Your task to perform on an android device: change the clock display to analog Image 0: 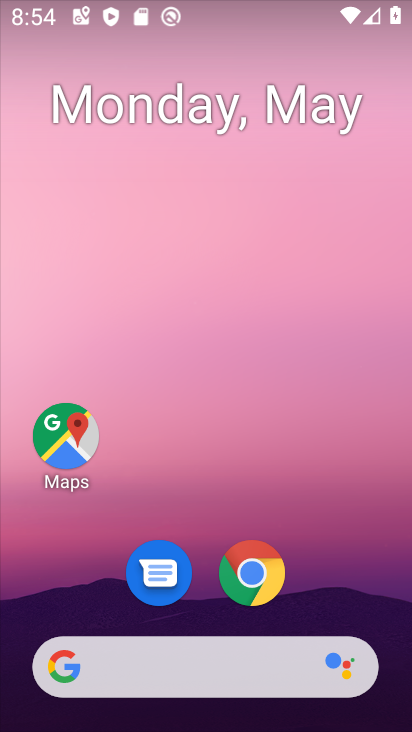
Step 0: drag from (344, 567) to (316, 172)
Your task to perform on an android device: change the clock display to analog Image 1: 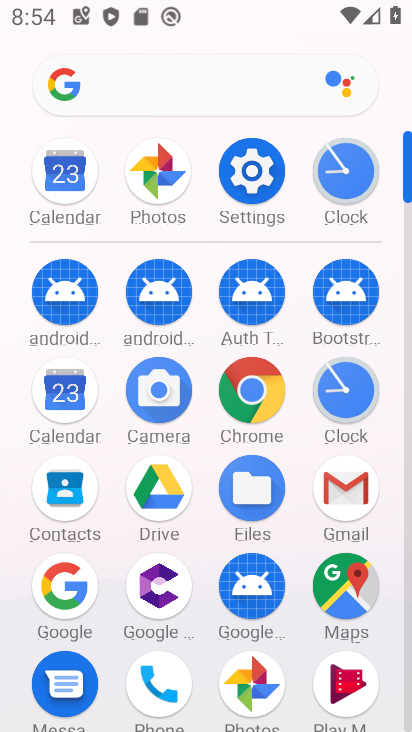
Step 1: click (363, 200)
Your task to perform on an android device: change the clock display to analog Image 2: 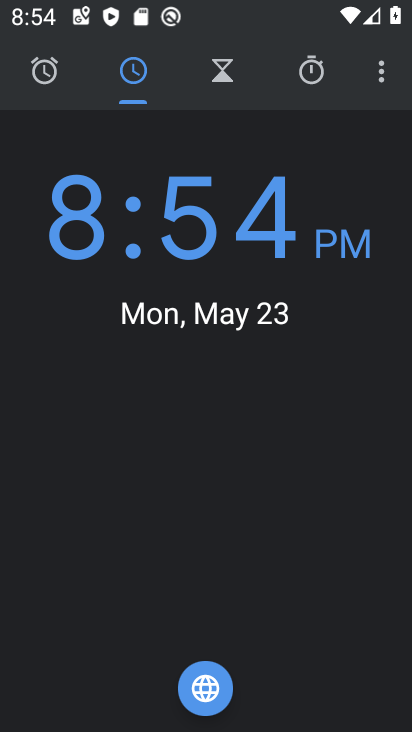
Step 2: click (398, 58)
Your task to perform on an android device: change the clock display to analog Image 3: 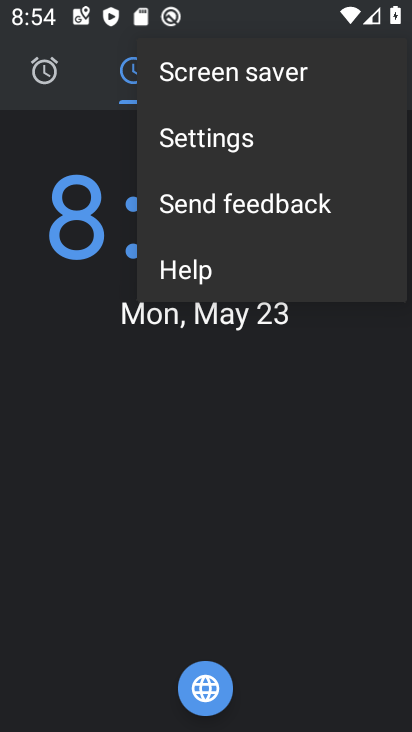
Step 3: click (258, 159)
Your task to perform on an android device: change the clock display to analog Image 4: 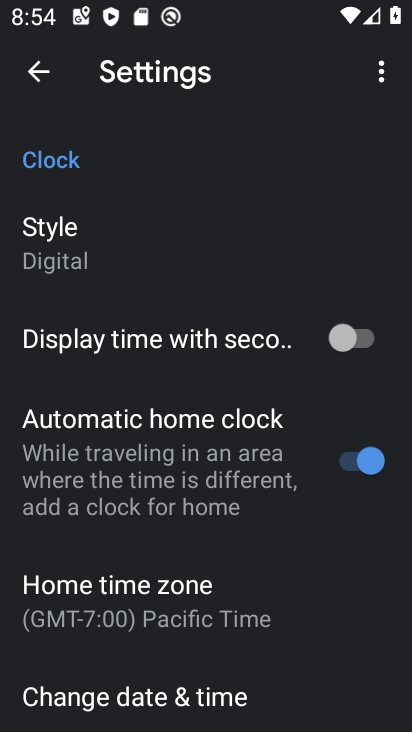
Step 4: click (160, 281)
Your task to perform on an android device: change the clock display to analog Image 5: 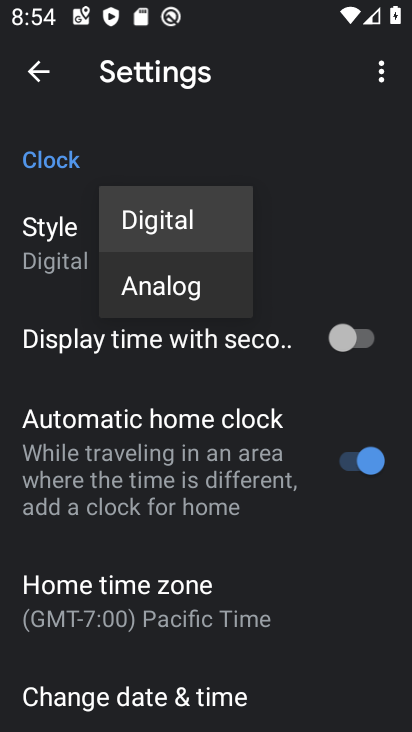
Step 5: click (192, 288)
Your task to perform on an android device: change the clock display to analog Image 6: 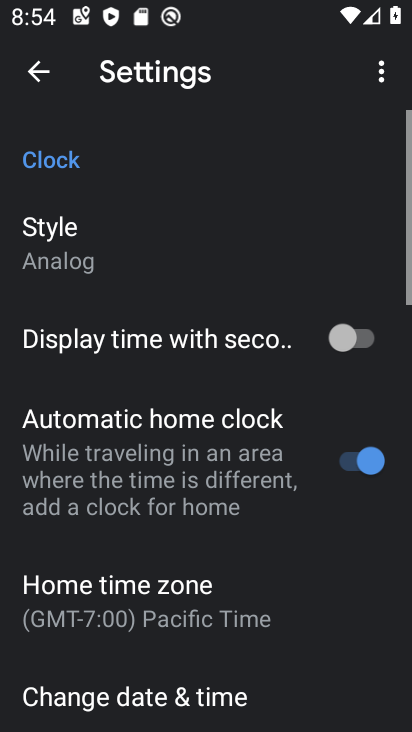
Step 6: task complete